Your task to perform on an android device: Go to network settings Image 0: 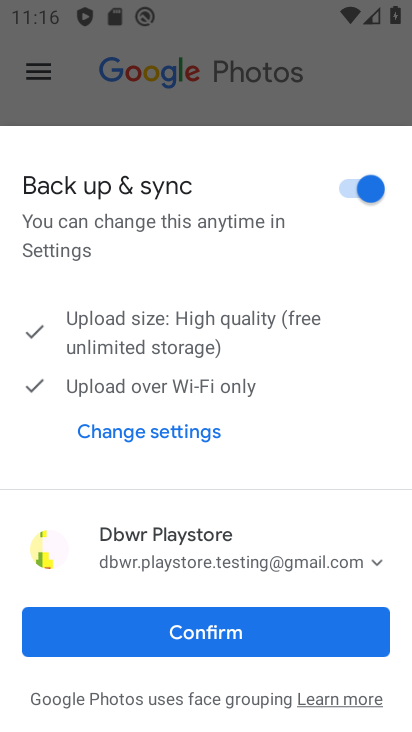
Step 0: press home button
Your task to perform on an android device: Go to network settings Image 1: 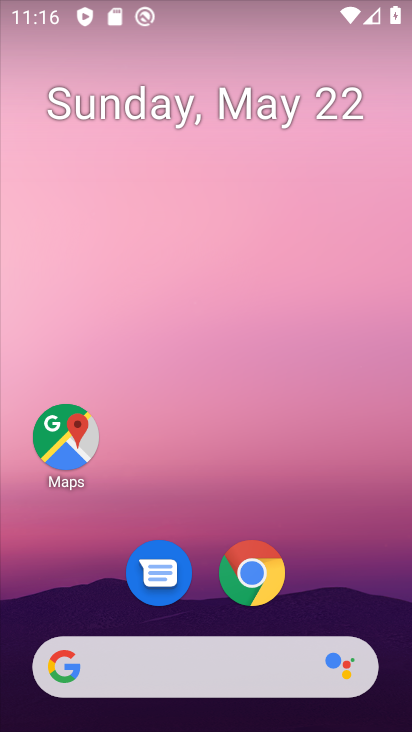
Step 1: drag from (201, 590) to (228, 22)
Your task to perform on an android device: Go to network settings Image 2: 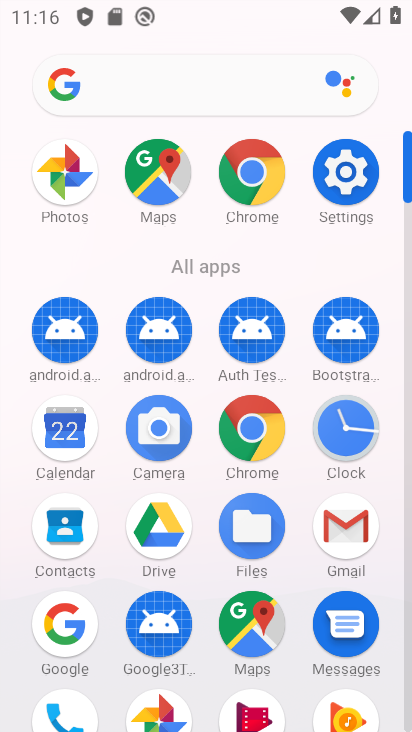
Step 2: click (353, 195)
Your task to perform on an android device: Go to network settings Image 3: 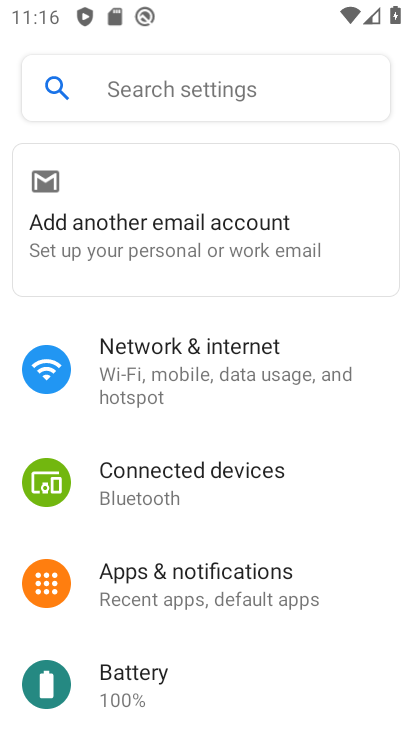
Step 3: click (219, 381)
Your task to perform on an android device: Go to network settings Image 4: 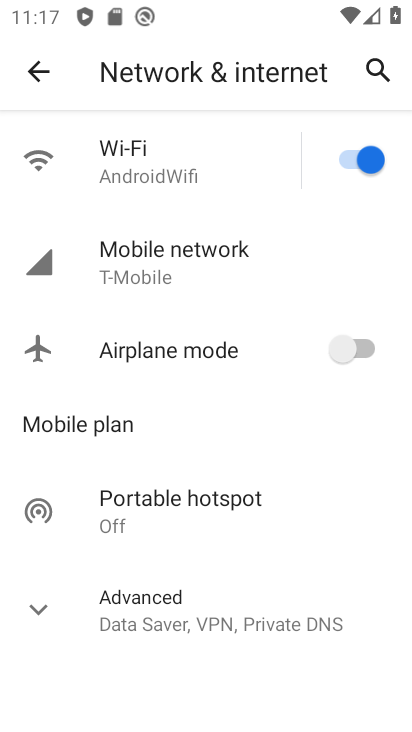
Step 4: task complete